Your task to perform on an android device: change the clock display to analog Image 0: 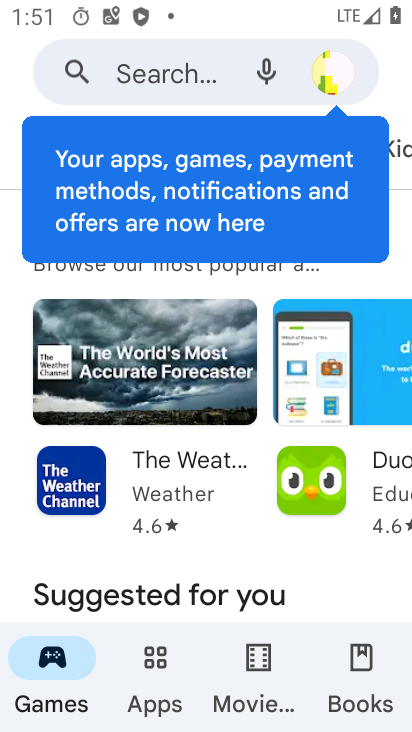
Step 0: press back button
Your task to perform on an android device: change the clock display to analog Image 1: 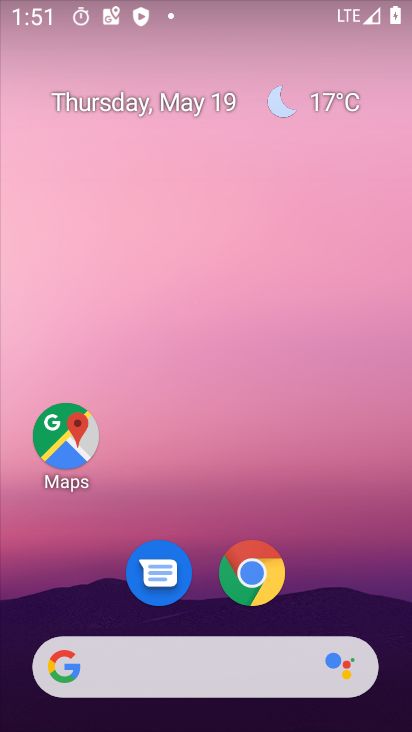
Step 1: drag from (213, 575) to (284, 41)
Your task to perform on an android device: change the clock display to analog Image 2: 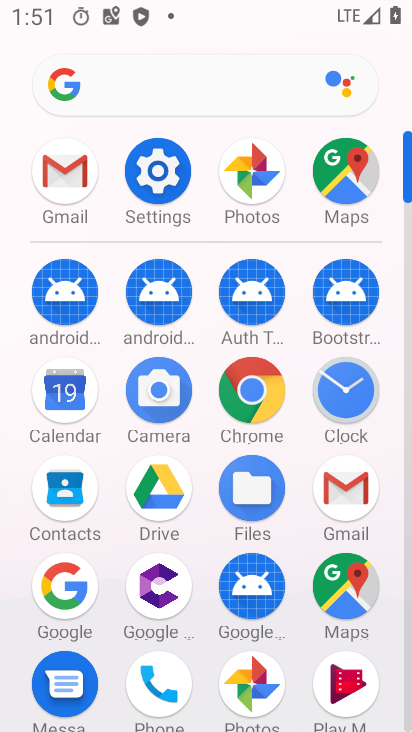
Step 2: click (350, 379)
Your task to perform on an android device: change the clock display to analog Image 3: 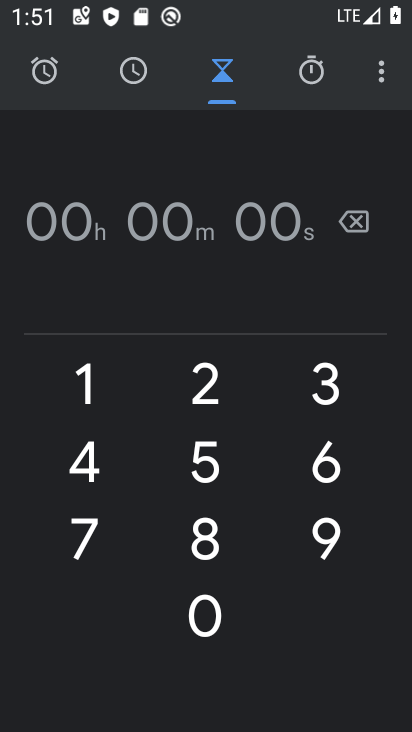
Step 3: click (380, 66)
Your task to perform on an android device: change the clock display to analog Image 4: 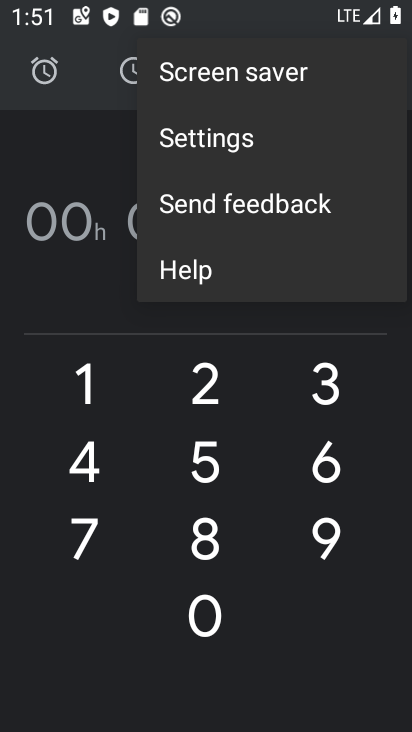
Step 4: click (228, 129)
Your task to perform on an android device: change the clock display to analog Image 5: 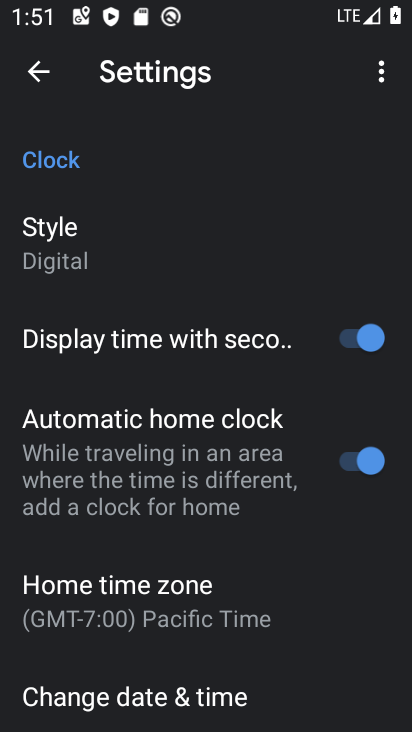
Step 5: click (113, 250)
Your task to perform on an android device: change the clock display to analog Image 6: 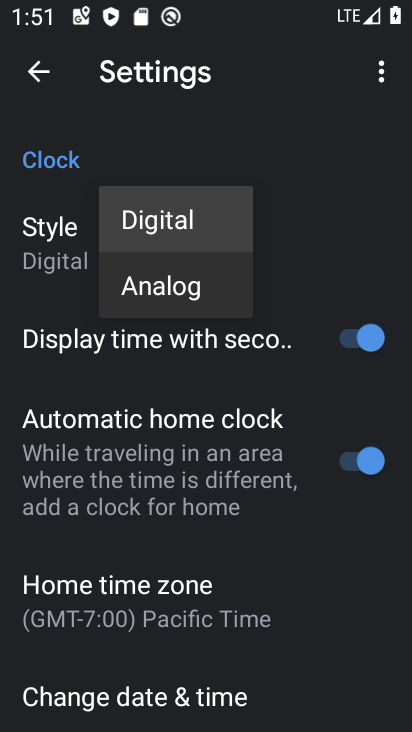
Step 6: click (179, 283)
Your task to perform on an android device: change the clock display to analog Image 7: 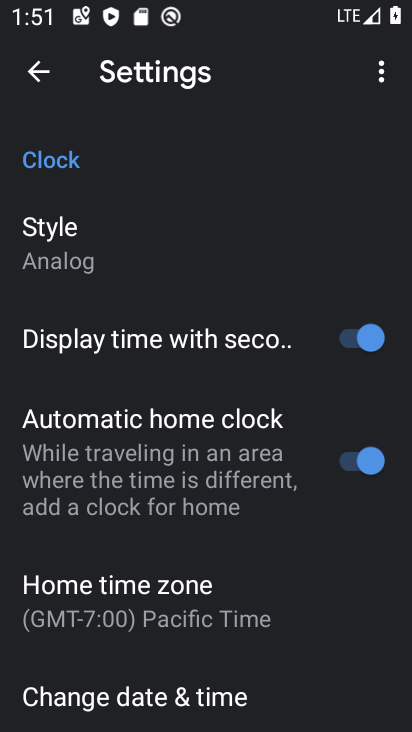
Step 7: task complete